Your task to perform on an android device: Set the phone to "Do not disturb". Image 0: 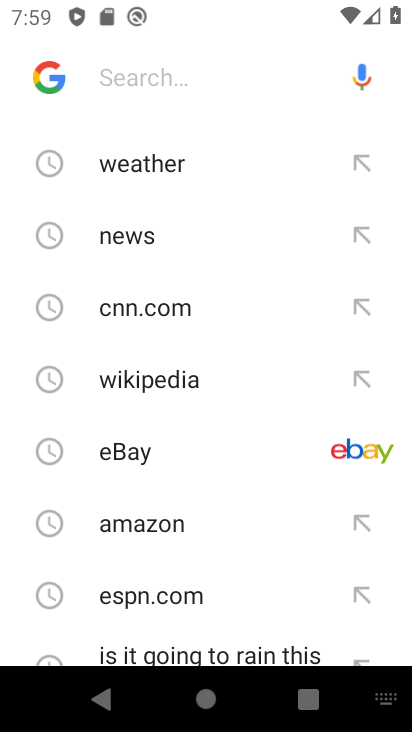
Step 0: press home button
Your task to perform on an android device: Set the phone to "Do not disturb". Image 1: 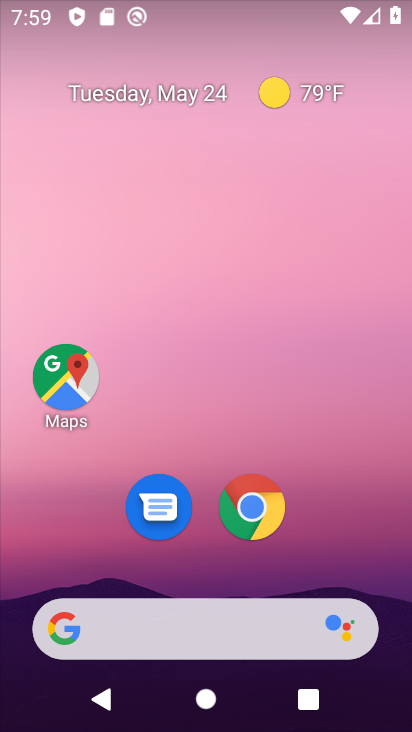
Step 1: drag from (333, 548) to (236, 35)
Your task to perform on an android device: Set the phone to "Do not disturb". Image 2: 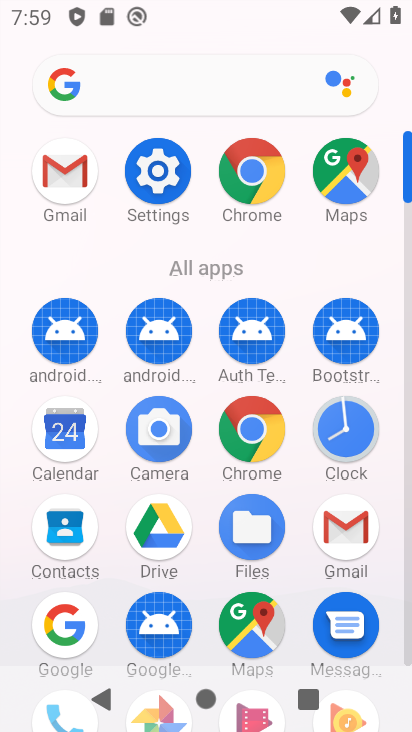
Step 2: drag from (0, 562) to (0, 212)
Your task to perform on an android device: Set the phone to "Do not disturb". Image 3: 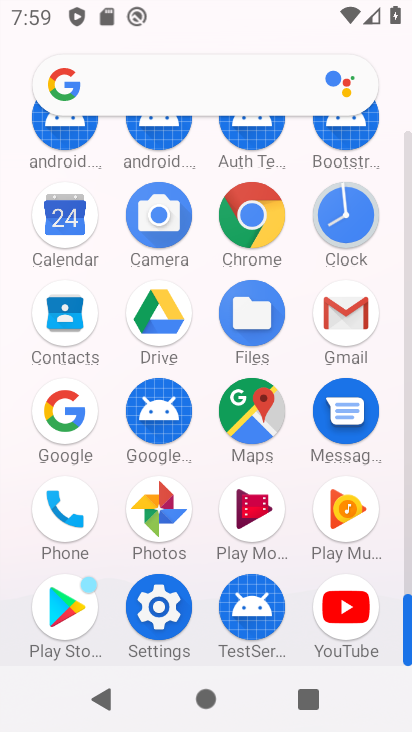
Step 3: drag from (6, 578) to (5, 266)
Your task to perform on an android device: Set the phone to "Do not disturb". Image 4: 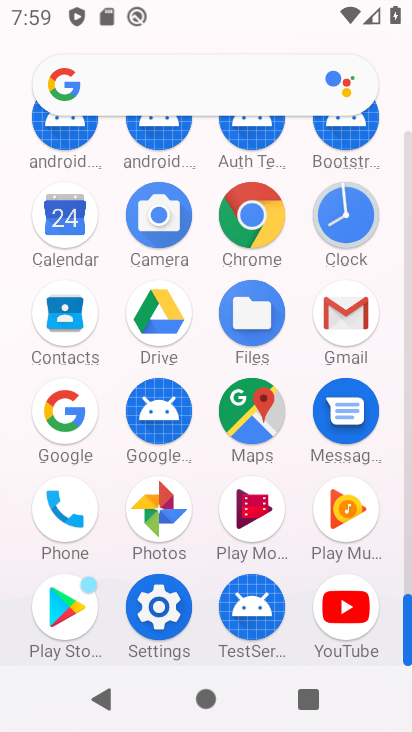
Step 4: click (158, 607)
Your task to perform on an android device: Set the phone to "Do not disturb". Image 5: 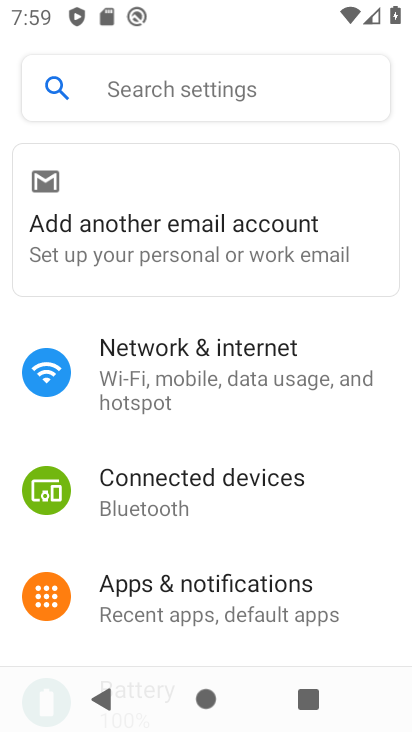
Step 5: drag from (297, 588) to (323, 258)
Your task to perform on an android device: Set the phone to "Do not disturb". Image 6: 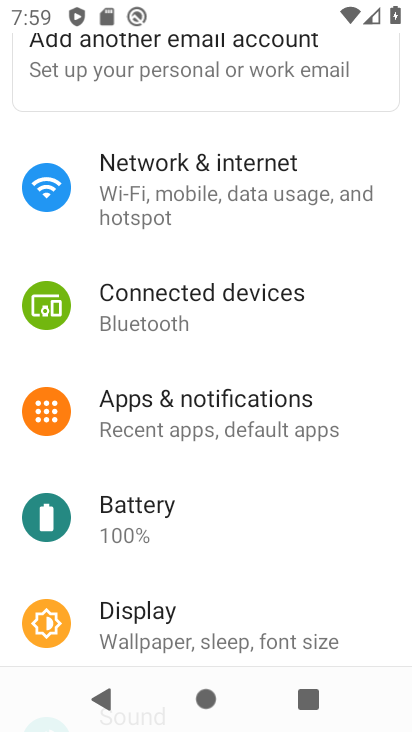
Step 6: drag from (284, 569) to (295, 224)
Your task to perform on an android device: Set the phone to "Do not disturb". Image 7: 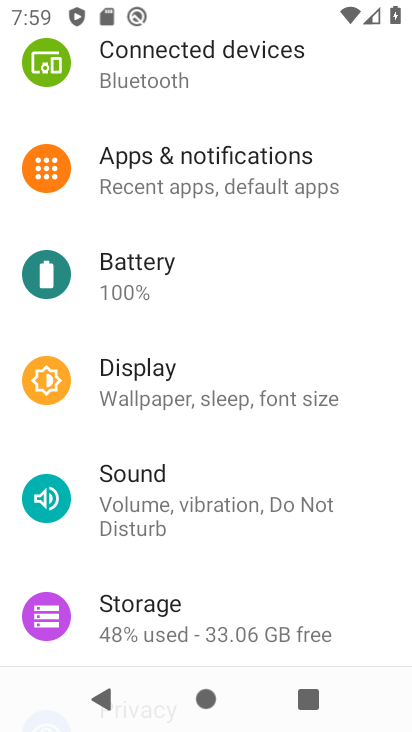
Step 7: click (210, 500)
Your task to perform on an android device: Set the phone to "Do not disturb". Image 8: 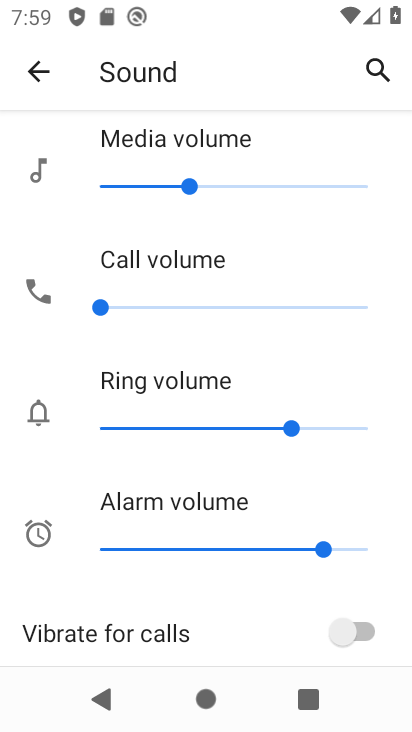
Step 8: drag from (213, 557) to (228, 138)
Your task to perform on an android device: Set the phone to "Do not disturb". Image 9: 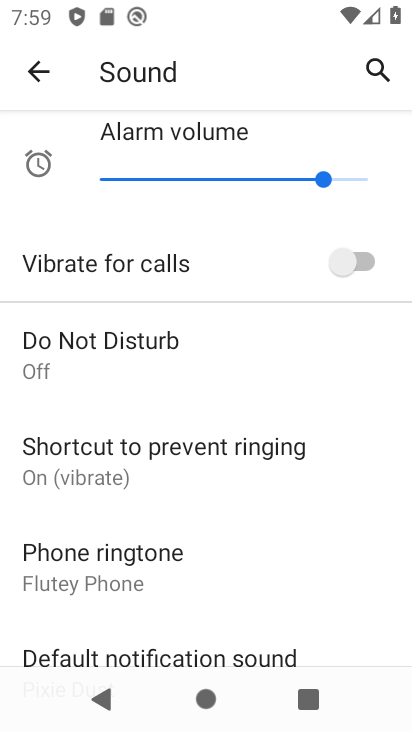
Step 9: drag from (234, 554) to (139, 237)
Your task to perform on an android device: Set the phone to "Do not disturb". Image 10: 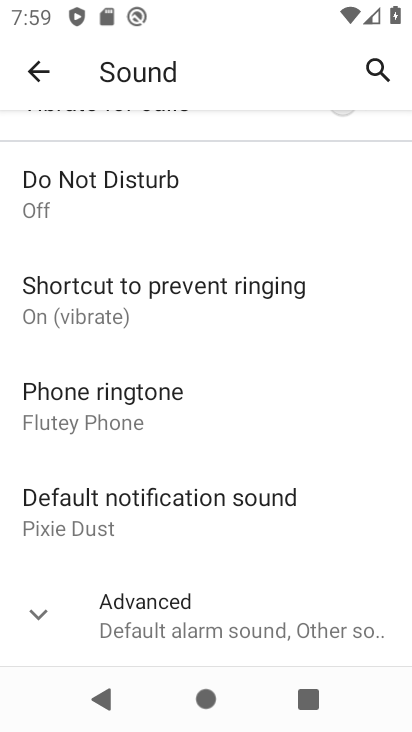
Step 10: click (127, 190)
Your task to perform on an android device: Set the phone to "Do not disturb". Image 11: 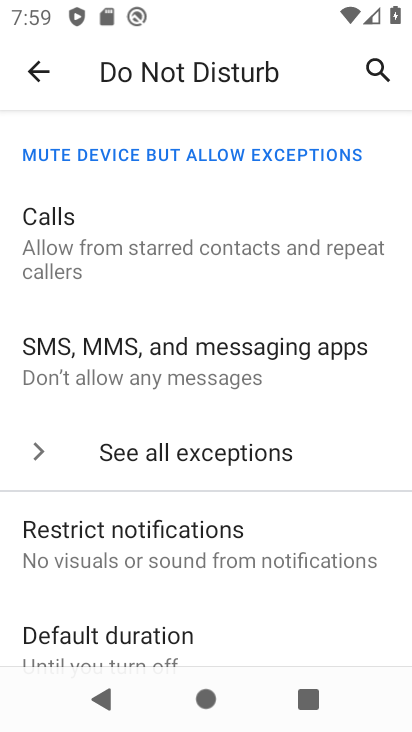
Step 11: drag from (284, 545) to (262, 92)
Your task to perform on an android device: Set the phone to "Do not disturb". Image 12: 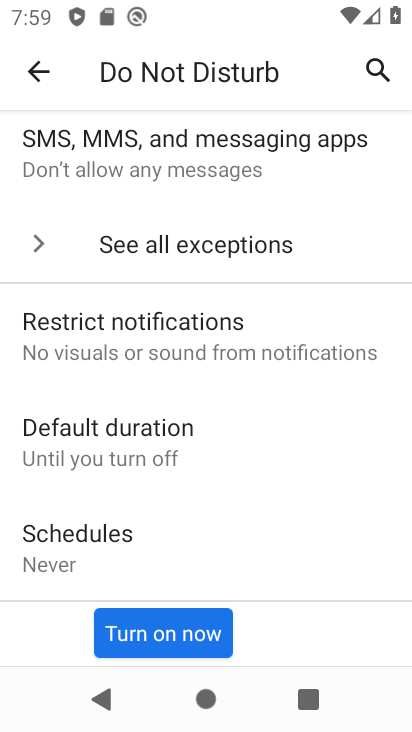
Step 12: click (154, 629)
Your task to perform on an android device: Set the phone to "Do not disturb". Image 13: 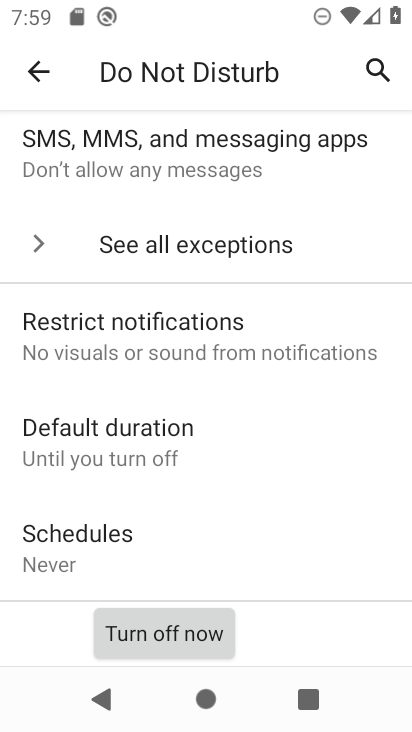
Step 13: task complete